Your task to perform on an android device: Show me the alarms in the clock app Image 0: 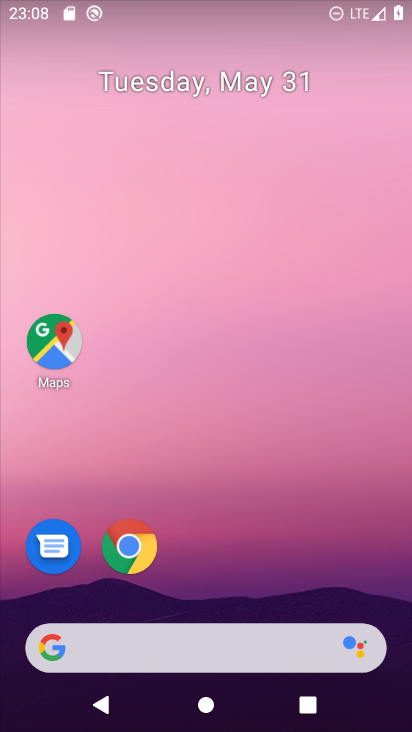
Step 0: drag from (393, 692) to (325, 95)
Your task to perform on an android device: Show me the alarms in the clock app Image 1: 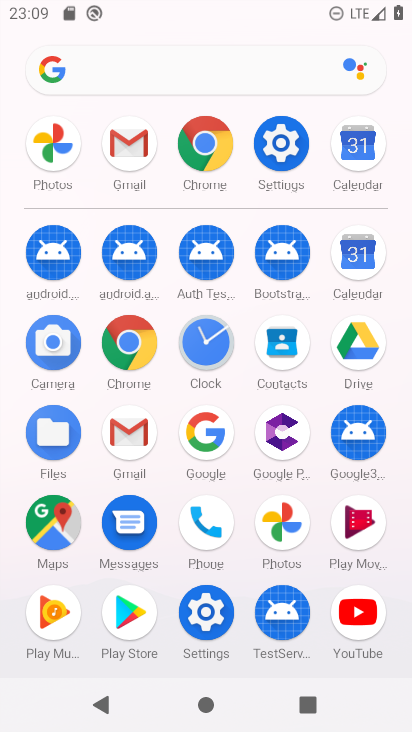
Step 1: click (207, 346)
Your task to perform on an android device: Show me the alarms in the clock app Image 2: 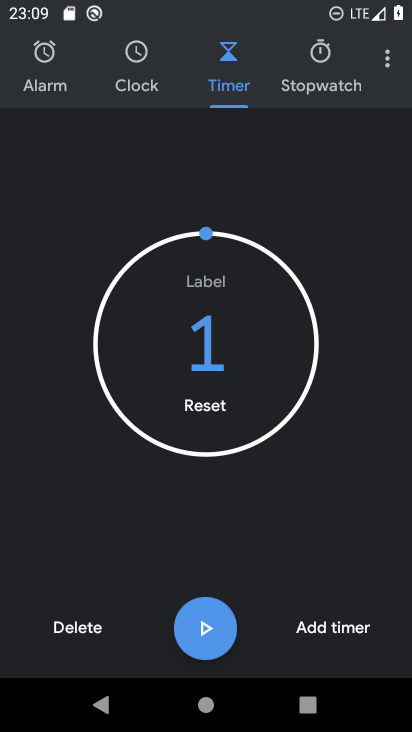
Step 2: click (385, 62)
Your task to perform on an android device: Show me the alarms in the clock app Image 3: 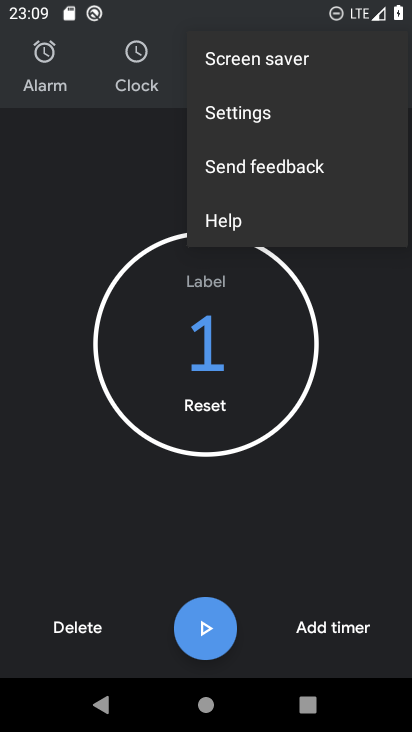
Step 3: click (33, 67)
Your task to perform on an android device: Show me the alarms in the clock app Image 4: 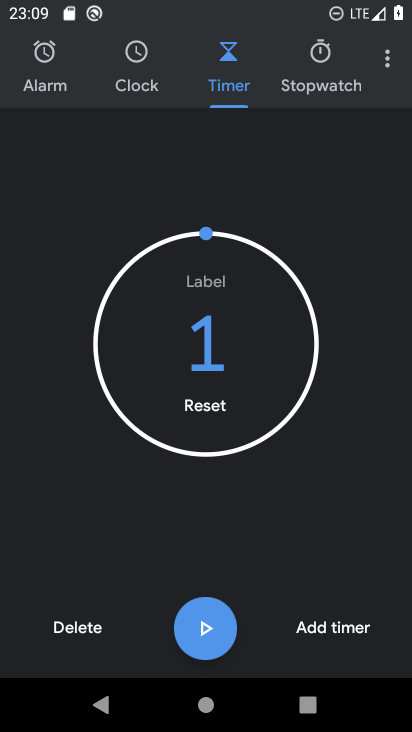
Step 4: click (49, 55)
Your task to perform on an android device: Show me the alarms in the clock app Image 5: 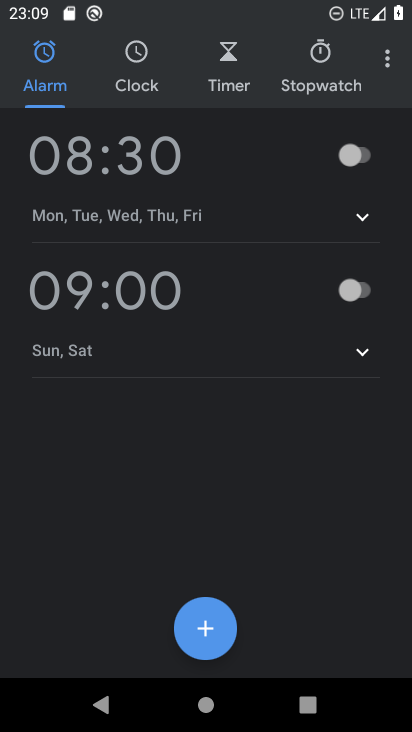
Step 5: task complete